Your task to perform on an android device: Search for Italian restaurants on Maps Image 0: 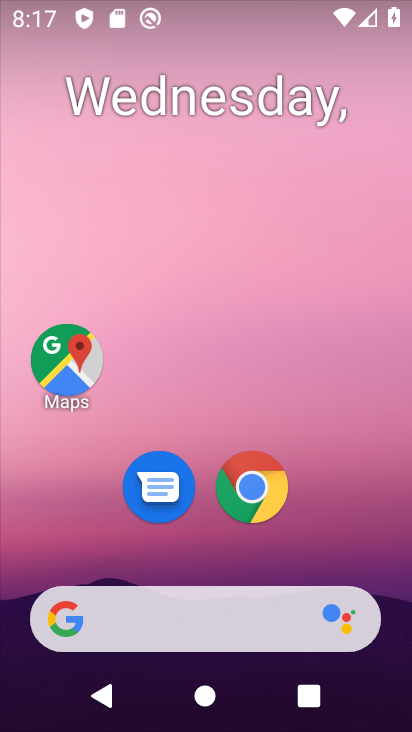
Step 0: press back button
Your task to perform on an android device: Search for Italian restaurants on Maps Image 1: 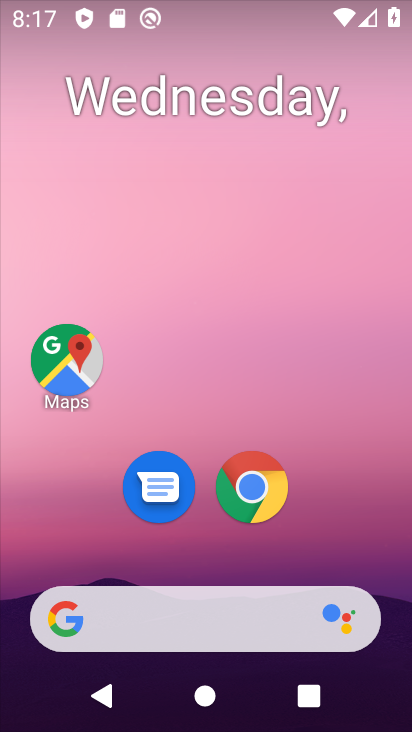
Step 1: drag from (357, 703) to (157, 128)
Your task to perform on an android device: Search for Italian restaurants on Maps Image 2: 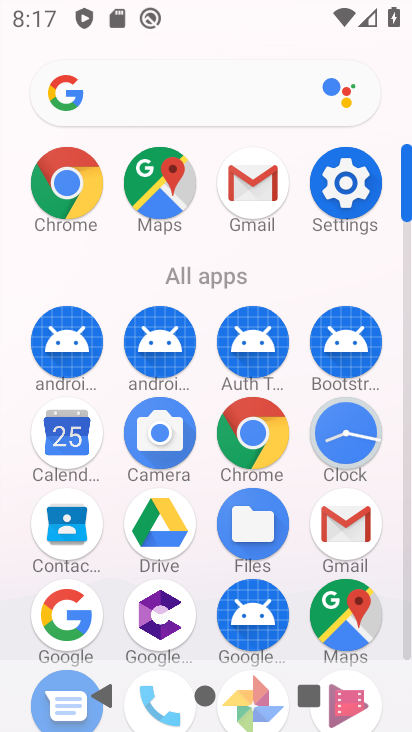
Step 2: click (347, 608)
Your task to perform on an android device: Search for Italian restaurants on Maps Image 3: 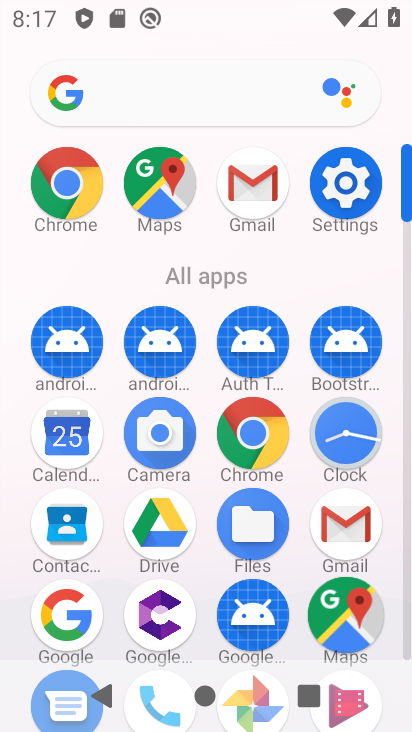
Step 3: click (346, 609)
Your task to perform on an android device: Search for Italian restaurants on Maps Image 4: 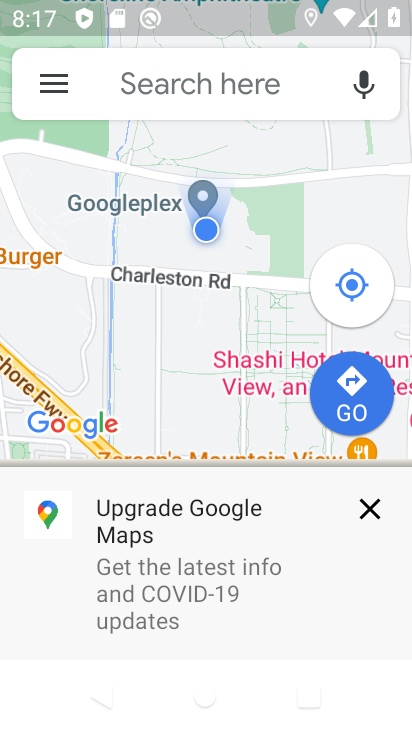
Step 4: click (135, 63)
Your task to perform on an android device: Search for Italian restaurants on Maps Image 5: 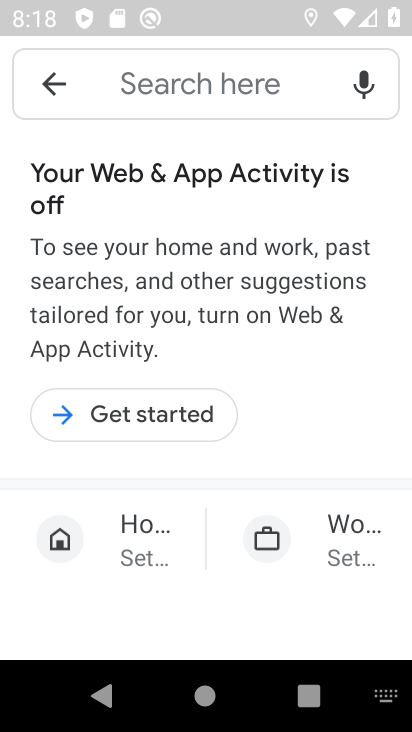
Step 5: type "italian restaurants"
Your task to perform on an android device: Search for Italian restaurants on Maps Image 6: 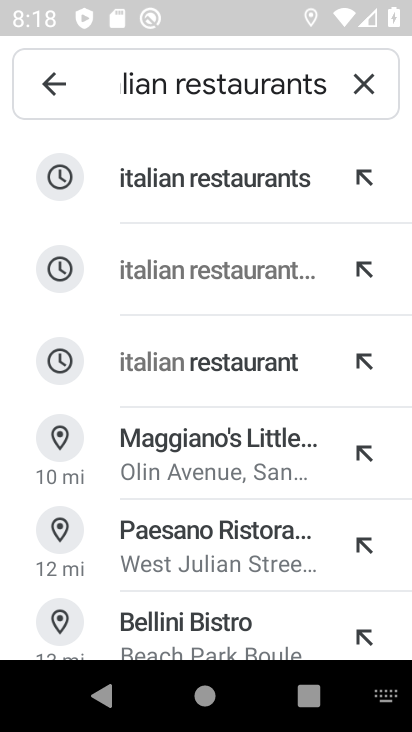
Step 6: click (176, 179)
Your task to perform on an android device: Search for Italian restaurants on Maps Image 7: 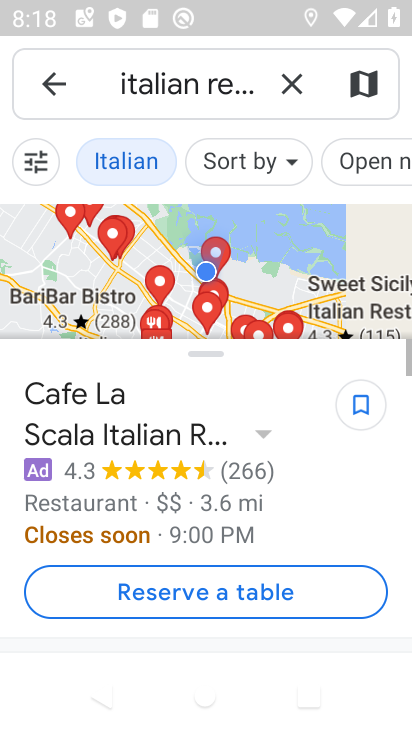
Step 7: task complete